Your task to perform on an android device: Open Youtube and go to "Your channel" Image 0: 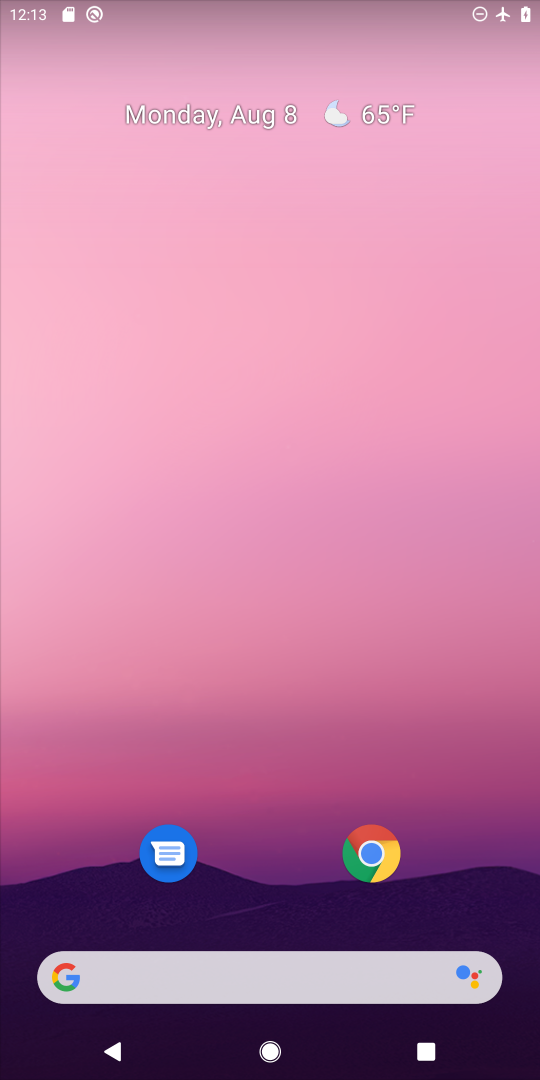
Step 0: drag from (219, 958) to (240, 134)
Your task to perform on an android device: Open Youtube and go to "Your channel" Image 1: 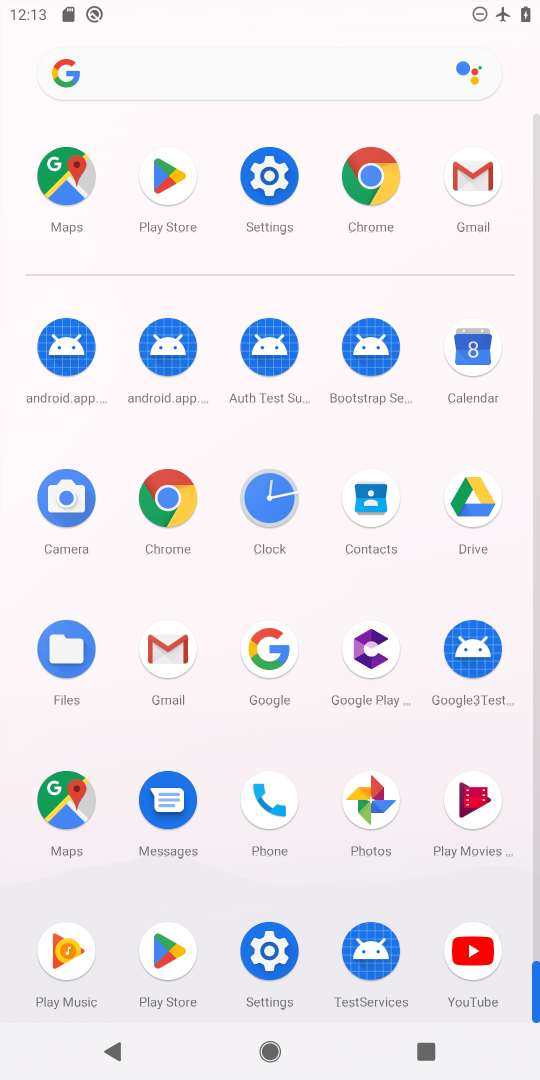
Step 1: click (473, 949)
Your task to perform on an android device: Open Youtube and go to "Your channel" Image 2: 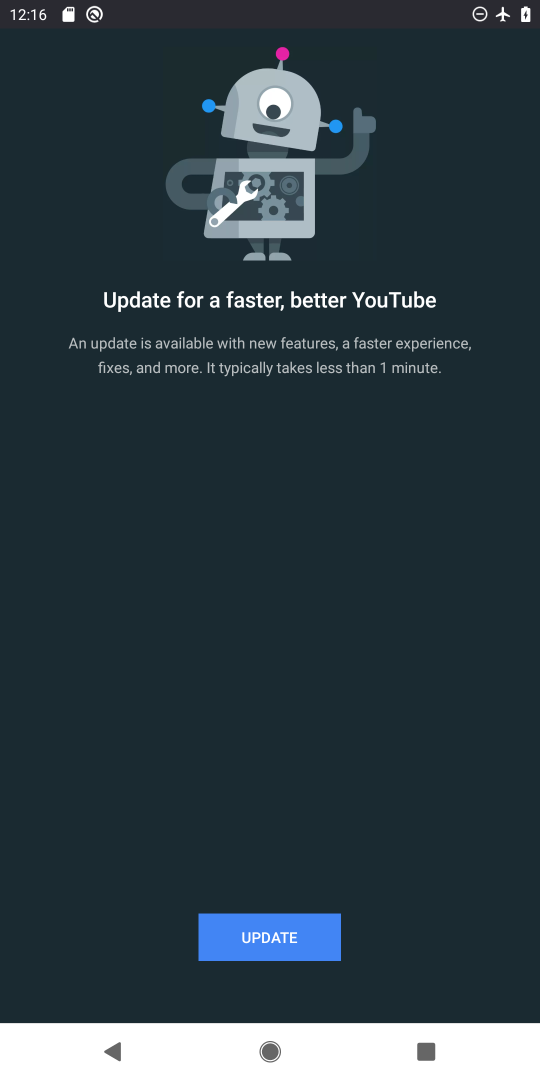
Step 2: task complete